Your task to perform on an android device: open a bookmark in the chrome app Image 0: 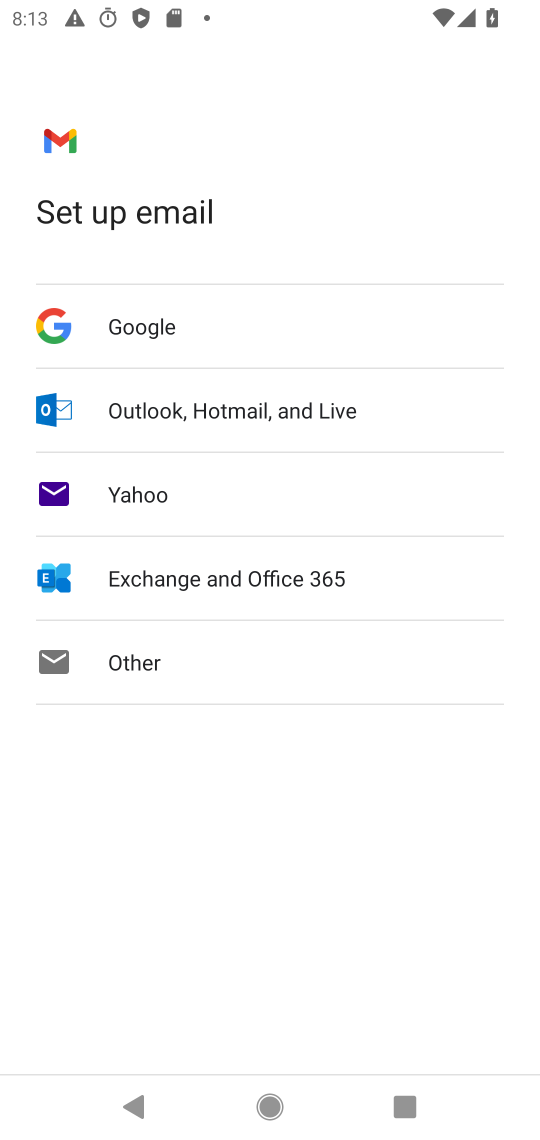
Step 0: press back button
Your task to perform on an android device: open a bookmark in the chrome app Image 1: 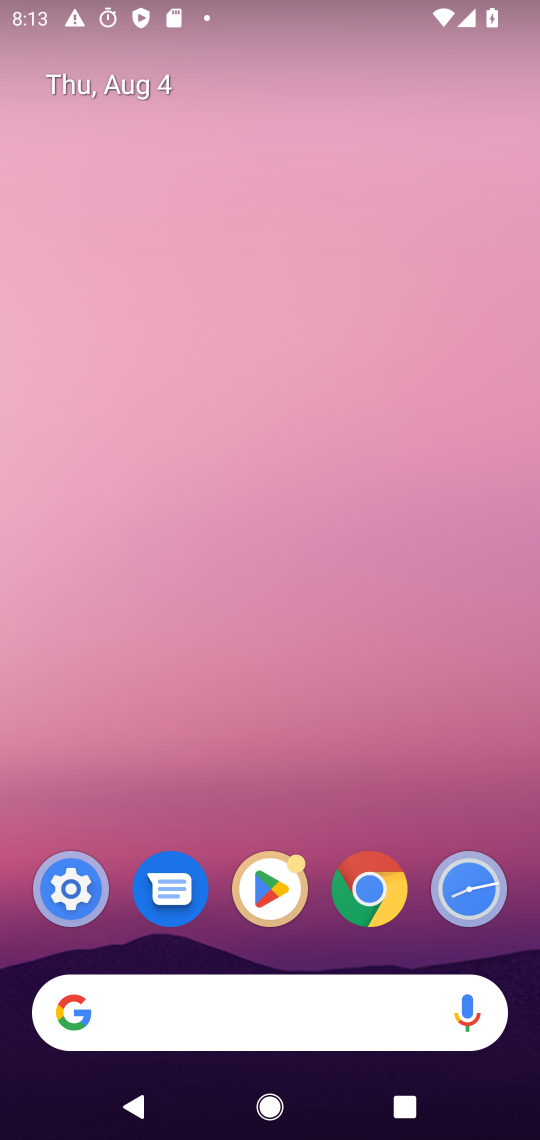
Step 1: click (371, 897)
Your task to perform on an android device: open a bookmark in the chrome app Image 2: 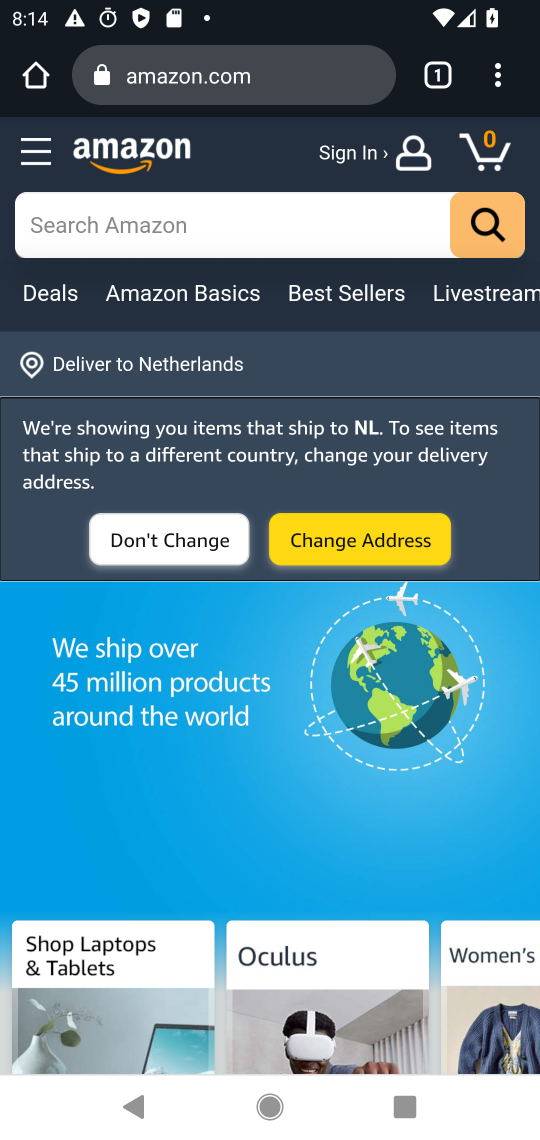
Step 2: click (500, 86)
Your task to perform on an android device: open a bookmark in the chrome app Image 3: 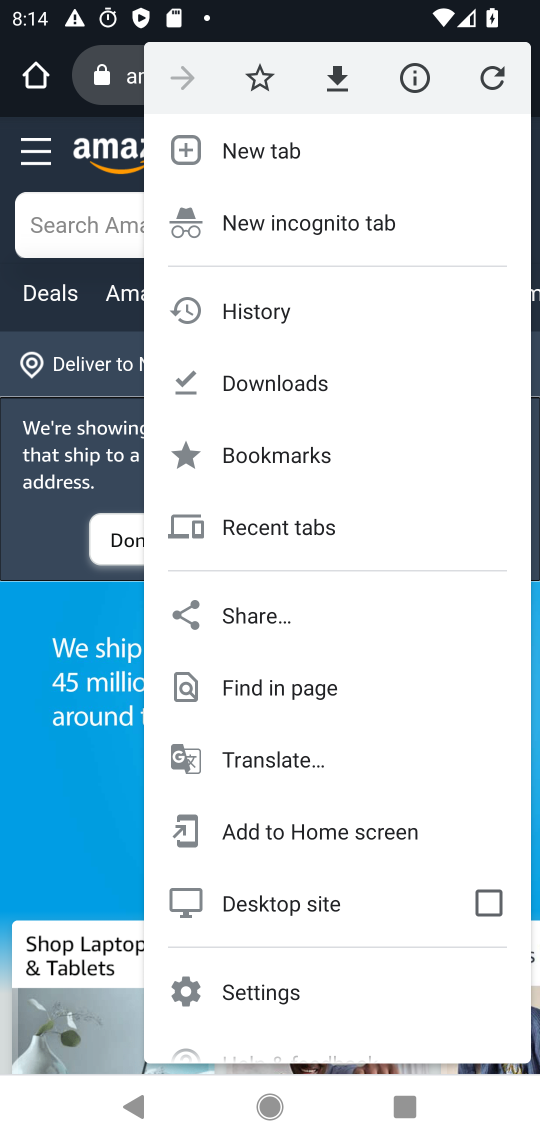
Step 3: click (265, 456)
Your task to perform on an android device: open a bookmark in the chrome app Image 4: 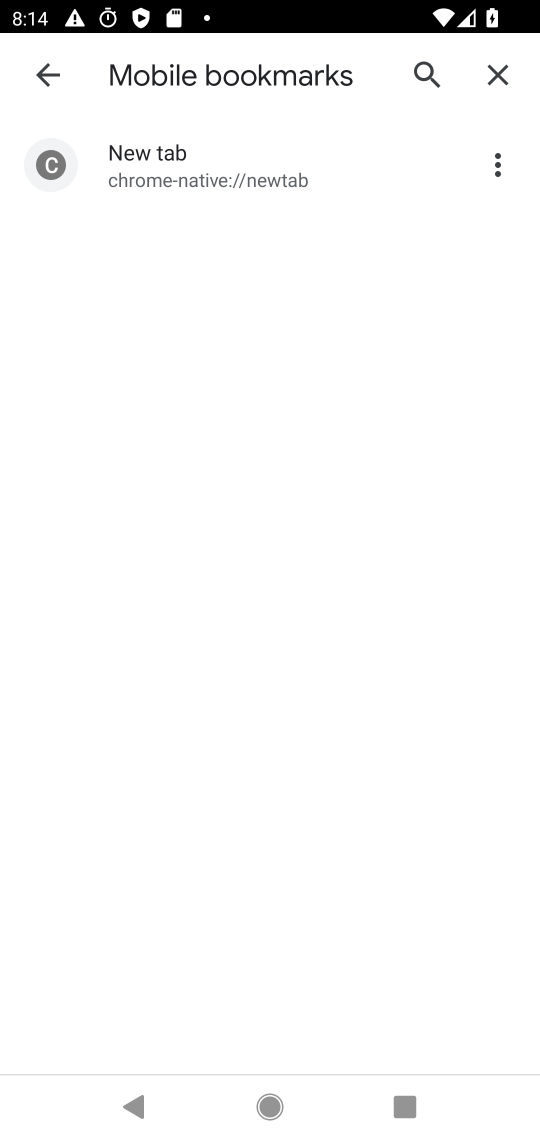
Step 4: click (205, 164)
Your task to perform on an android device: open a bookmark in the chrome app Image 5: 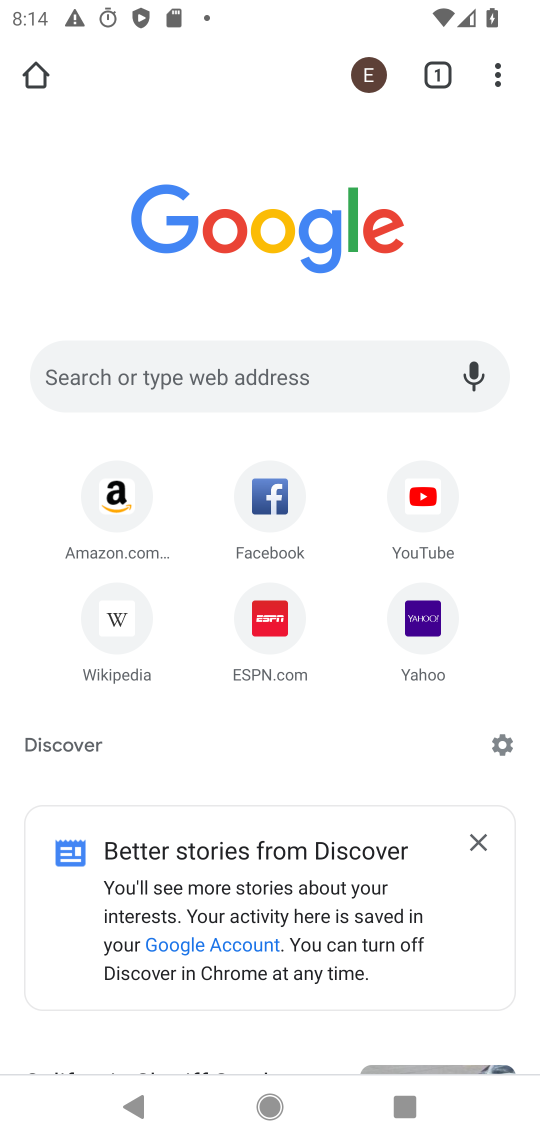
Step 5: click (497, 78)
Your task to perform on an android device: open a bookmark in the chrome app Image 6: 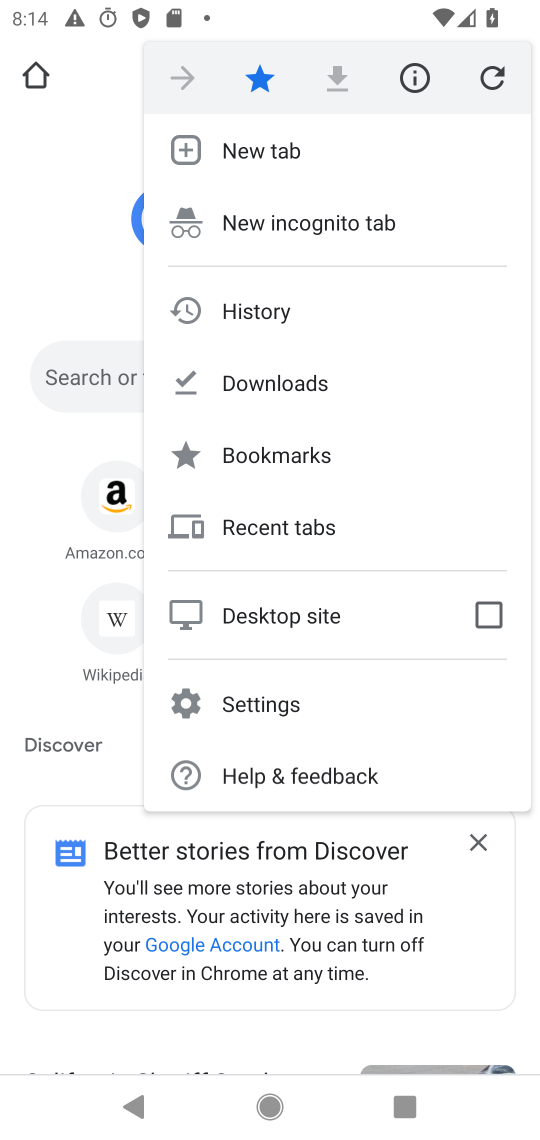
Step 6: task complete